Your task to perform on an android device: Open location settings Image 0: 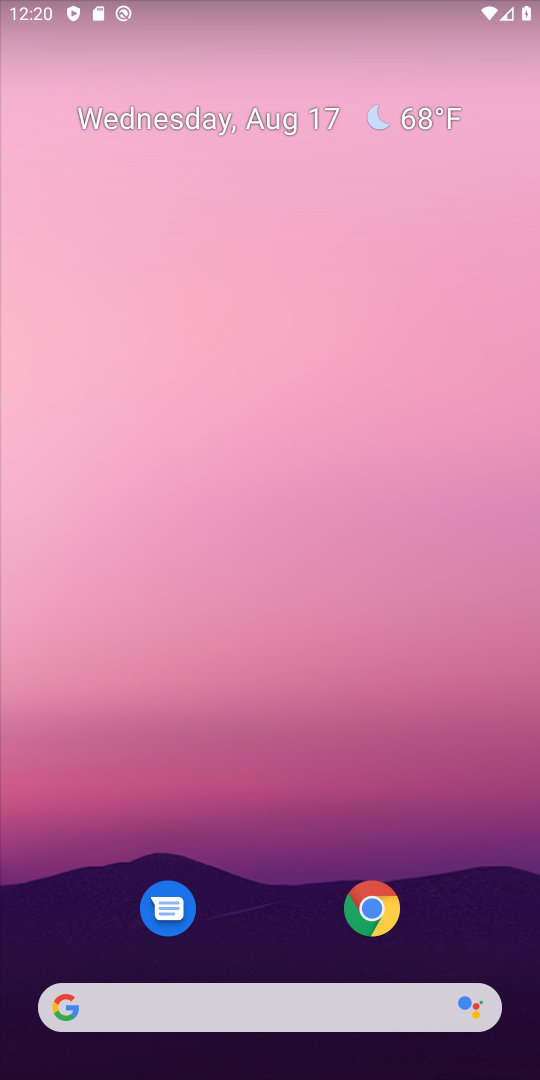
Step 0: drag from (296, 924) to (272, 361)
Your task to perform on an android device: Open location settings Image 1: 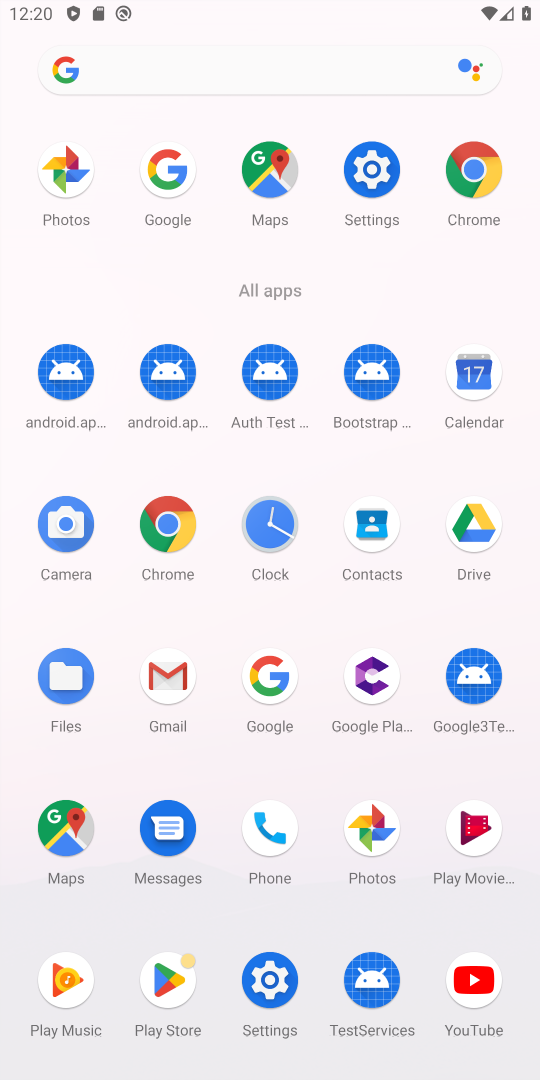
Step 1: click (384, 164)
Your task to perform on an android device: Open location settings Image 2: 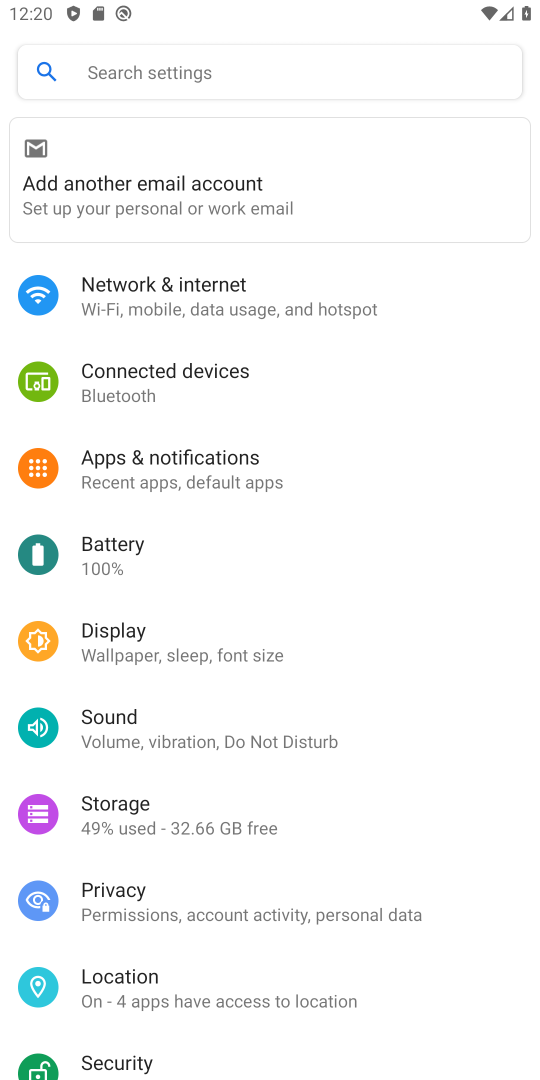
Step 2: click (205, 975)
Your task to perform on an android device: Open location settings Image 3: 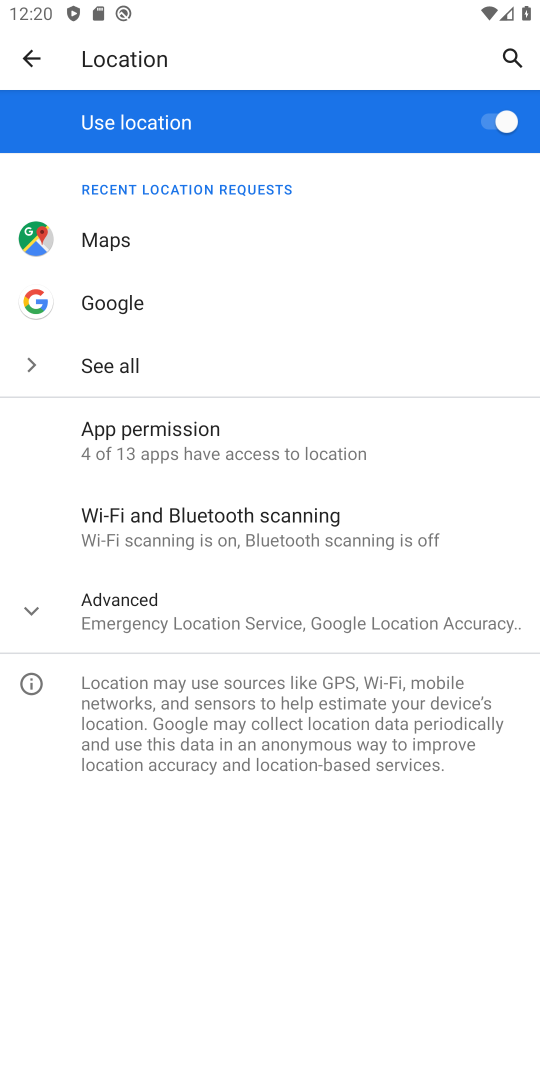
Step 3: task complete